Your task to perform on an android device: What's the weather? Image 0: 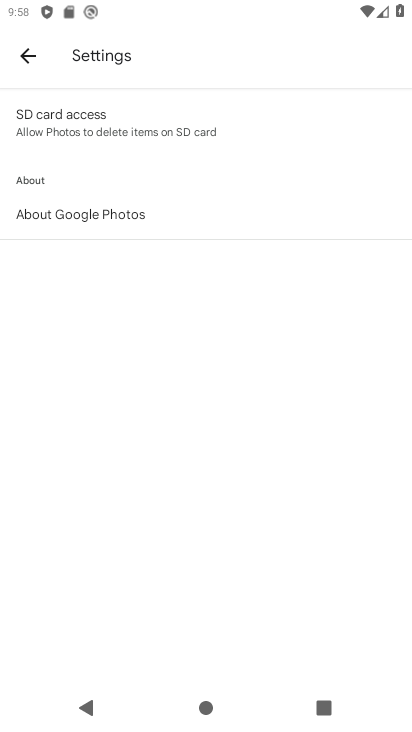
Step 0: press home button
Your task to perform on an android device: What's the weather? Image 1: 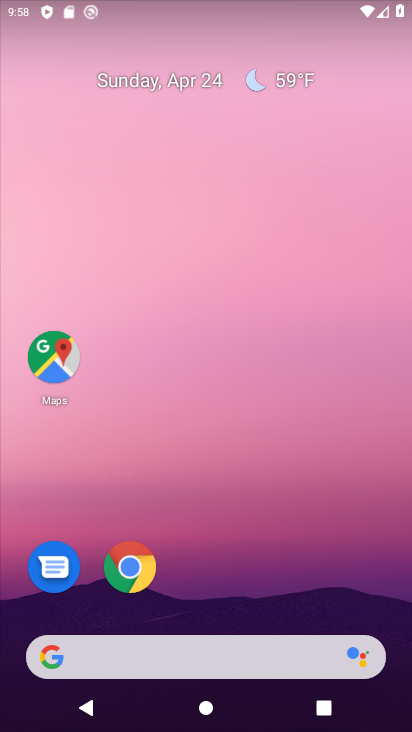
Step 1: click (294, 73)
Your task to perform on an android device: What's the weather? Image 2: 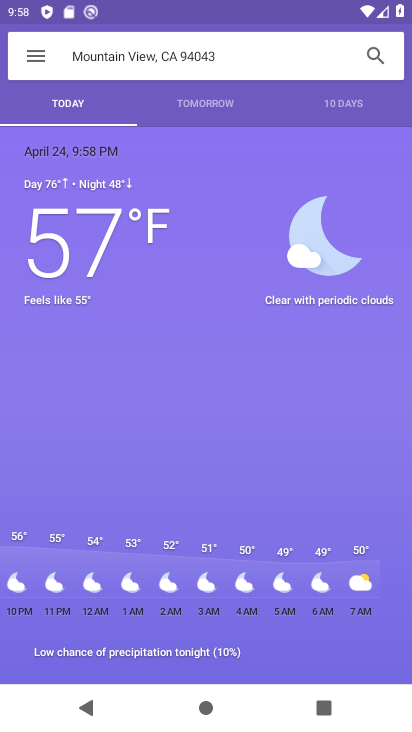
Step 2: task complete